Your task to perform on an android device: Set the phone to "Do not disturb". Image 0: 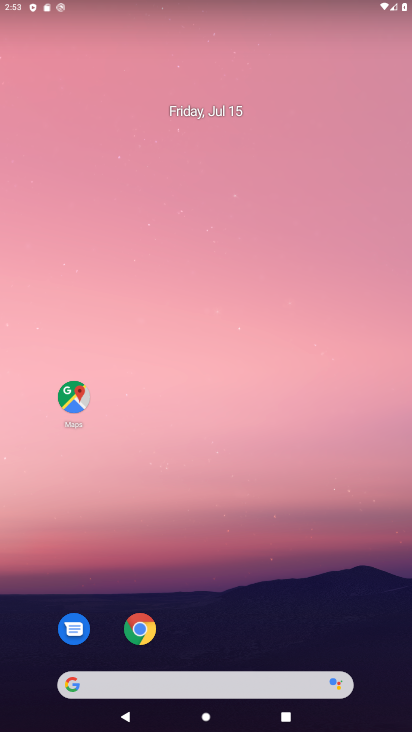
Step 0: drag from (211, 415) to (211, 35)
Your task to perform on an android device: Set the phone to "Do not disturb". Image 1: 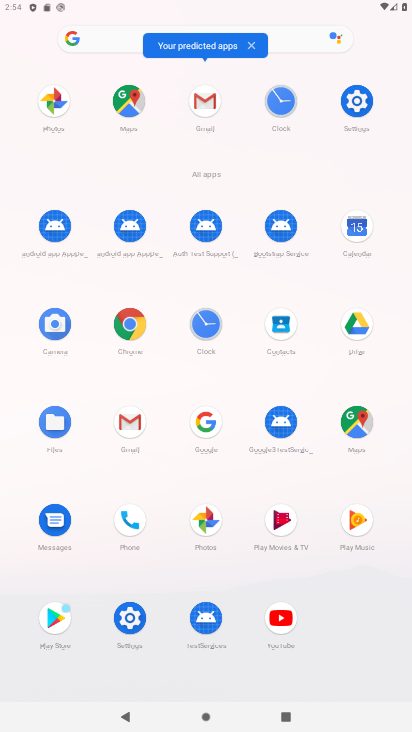
Step 1: click (354, 97)
Your task to perform on an android device: Set the phone to "Do not disturb". Image 2: 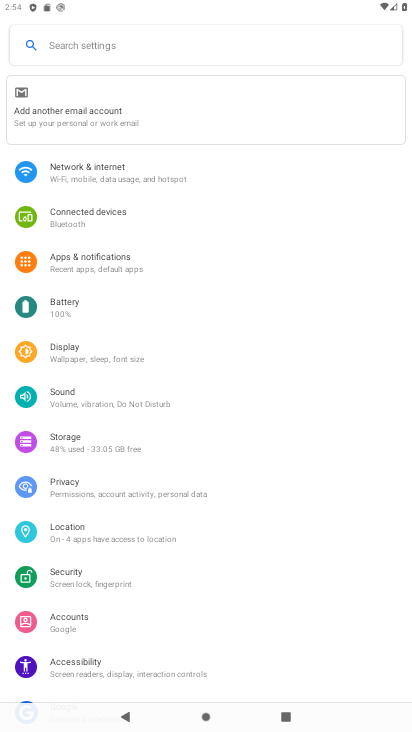
Step 2: click (89, 398)
Your task to perform on an android device: Set the phone to "Do not disturb". Image 3: 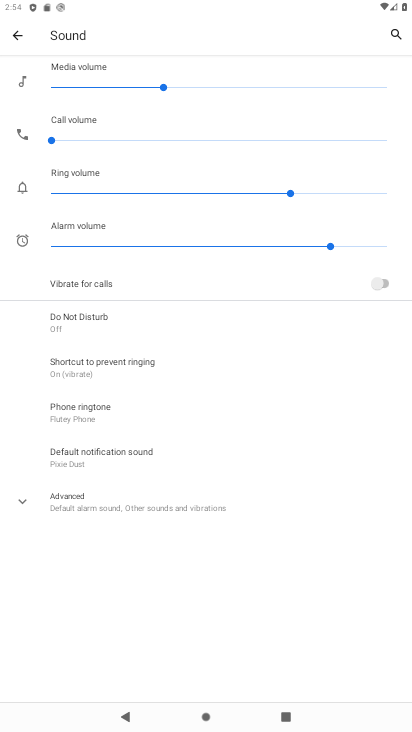
Step 3: click (71, 313)
Your task to perform on an android device: Set the phone to "Do not disturb". Image 4: 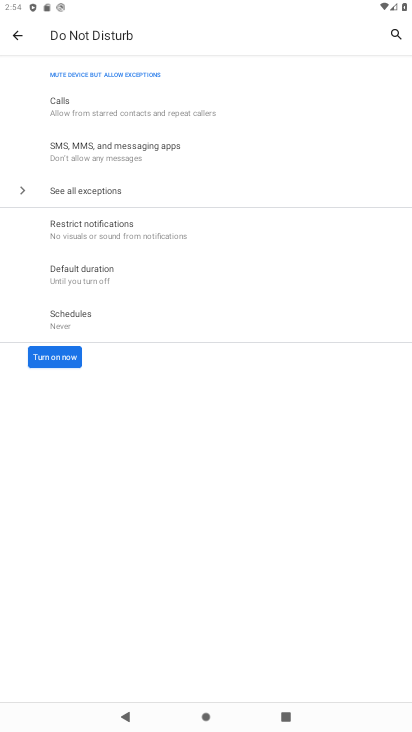
Step 4: click (55, 360)
Your task to perform on an android device: Set the phone to "Do not disturb". Image 5: 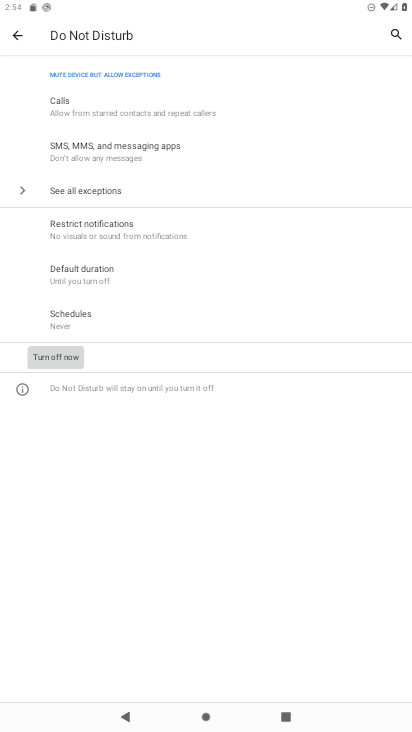
Step 5: task complete